Your task to perform on an android device: turn on location history Image 0: 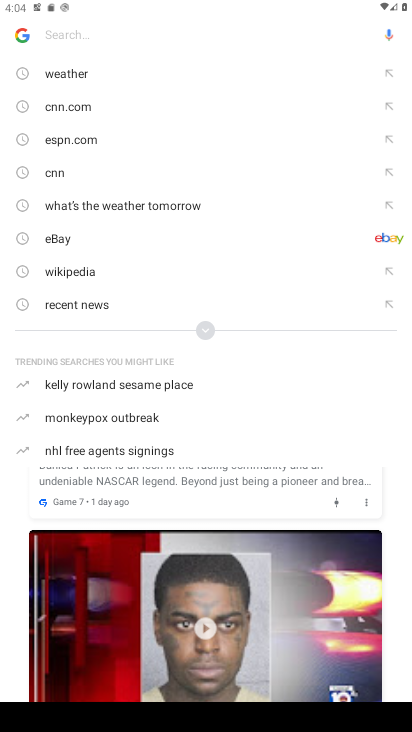
Step 0: press home button
Your task to perform on an android device: turn on location history Image 1: 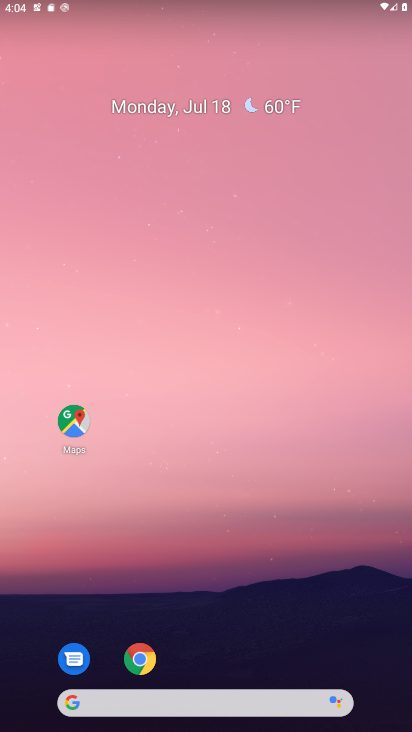
Step 1: drag from (275, 702) to (301, 64)
Your task to perform on an android device: turn on location history Image 2: 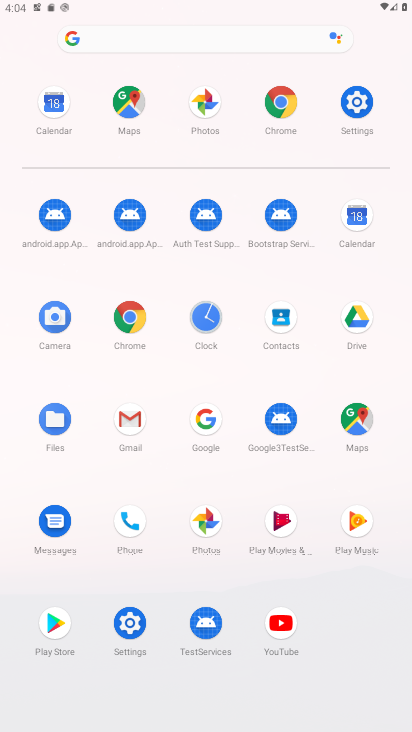
Step 2: click (356, 100)
Your task to perform on an android device: turn on location history Image 3: 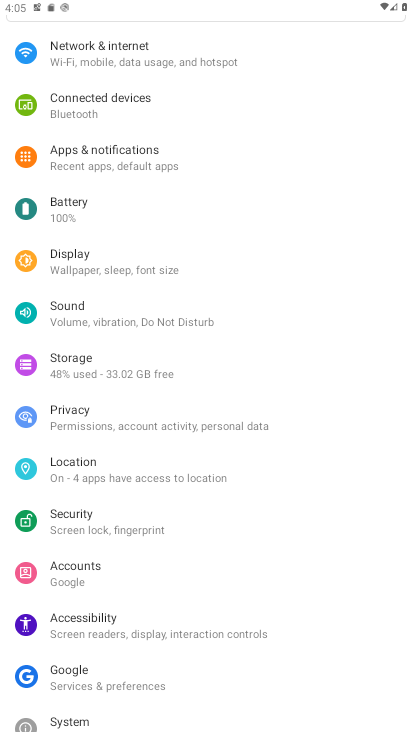
Step 3: click (150, 475)
Your task to perform on an android device: turn on location history Image 4: 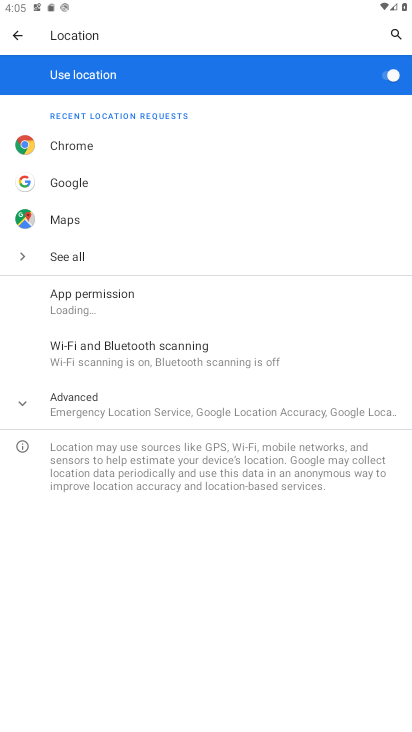
Step 4: click (204, 397)
Your task to perform on an android device: turn on location history Image 5: 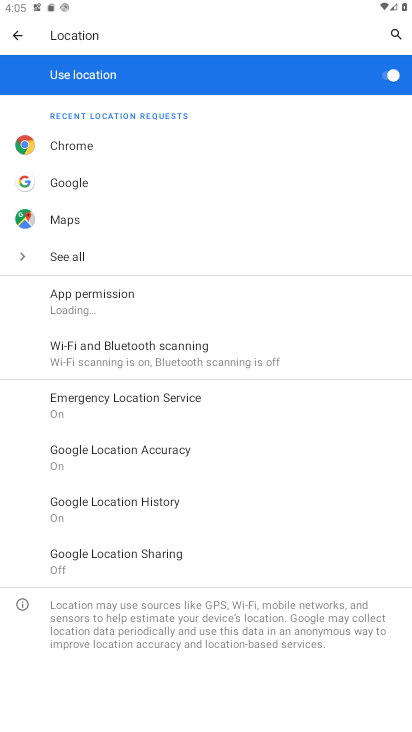
Step 5: click (160, 501)
Your task to perform on an android device: turn on location history Image 6: 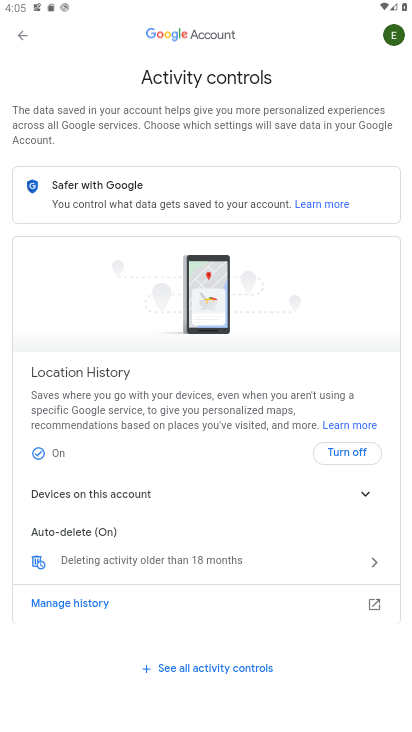
Step 6: task complete